Your task to perform on an android device: Open internet settings Image 0: 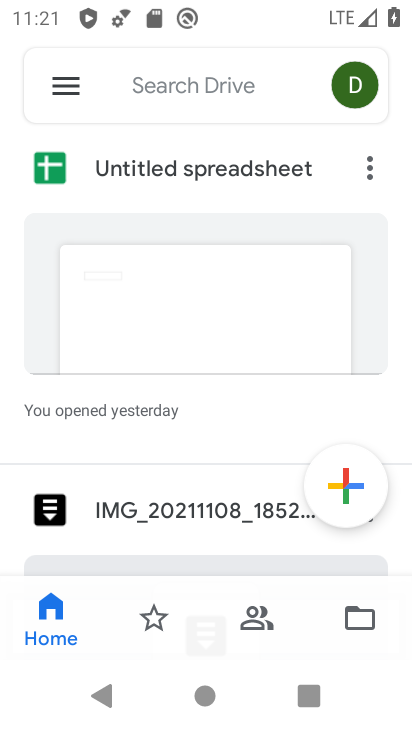
Step 0: press back button
Your task to perform on an android device: Open internet settings Image 1: 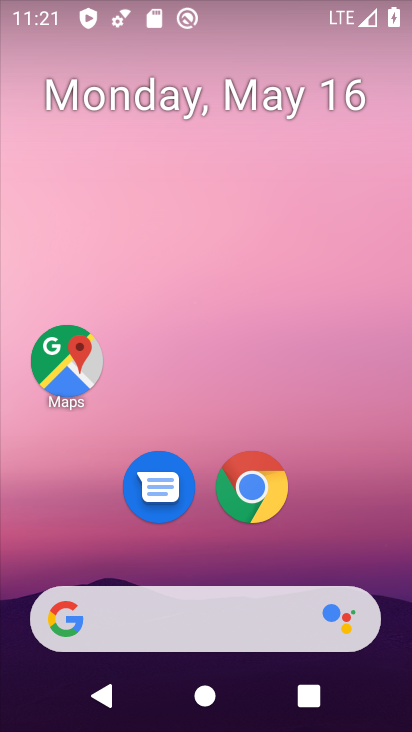
Step 1: drag from (105, 479) to (287, 213)
Your task to perform on an android device: Open internet settings Image 2: 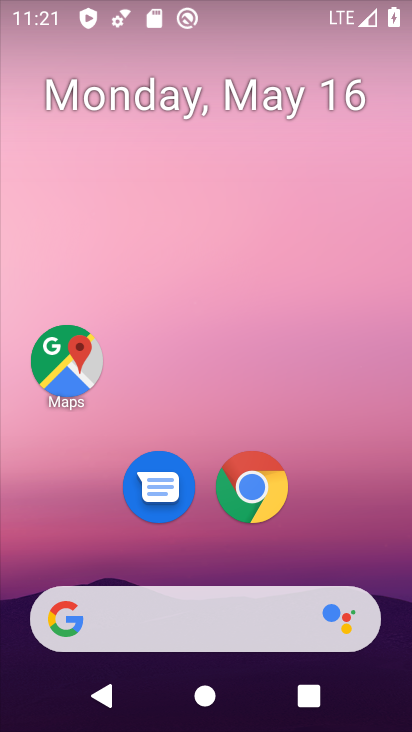
Step 2: drag from (45, 577) to (305, 142)
Your task to perform on an android device: Open internet settings Image 3: 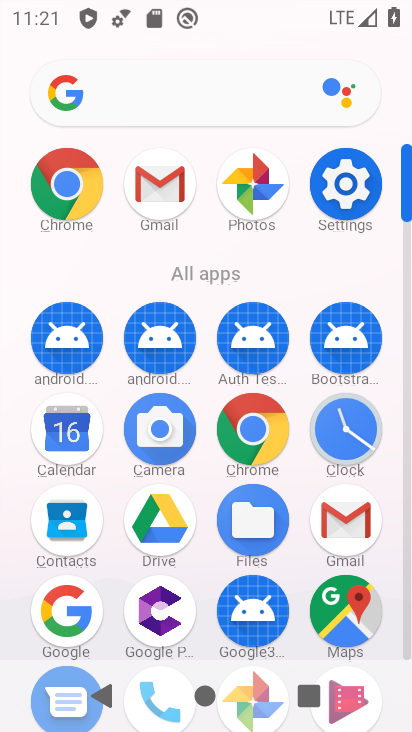
Step 3: click (342, 188)
Your task to perform on an android device: Open internet settings Image 4: 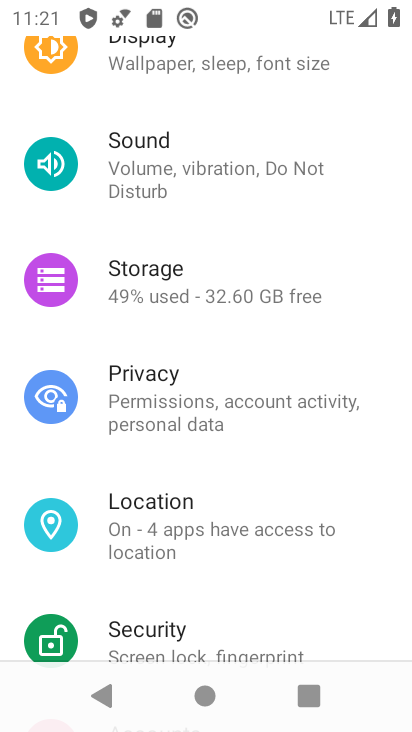
Step 4: drag from (176, 107) to (115, 641)
Your task to perform on an android device: Open internet settings Image 5: 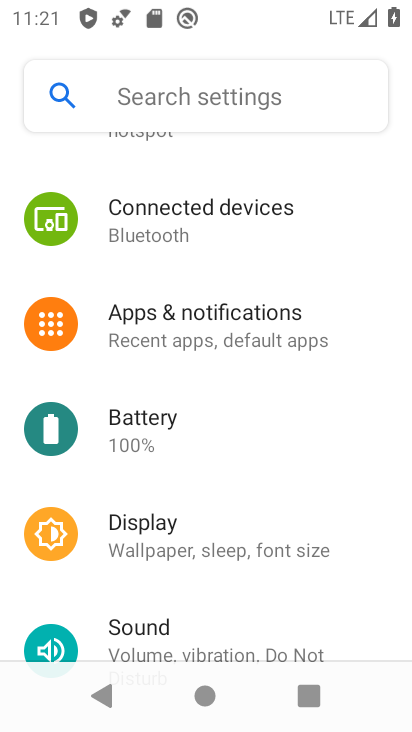
Step 5: drag from (191, 193) to (140, 602)
Your task to perform on an android device: Open internet settings Image 6: 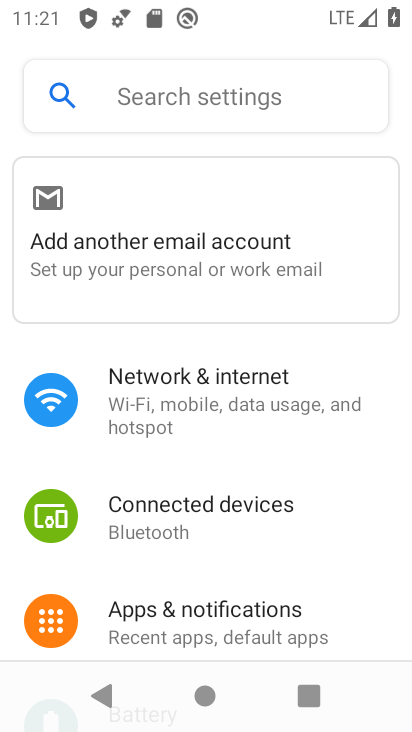
Step 6: click (190, 405)
Your task to perform on an android device: Open internet settings Image 7: 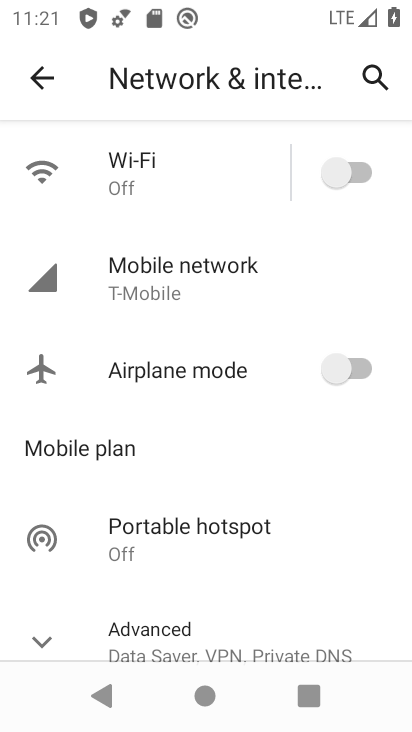
Step 7: click (147, 291)
Your task to perform on an android device: Open internet settings Image 8: 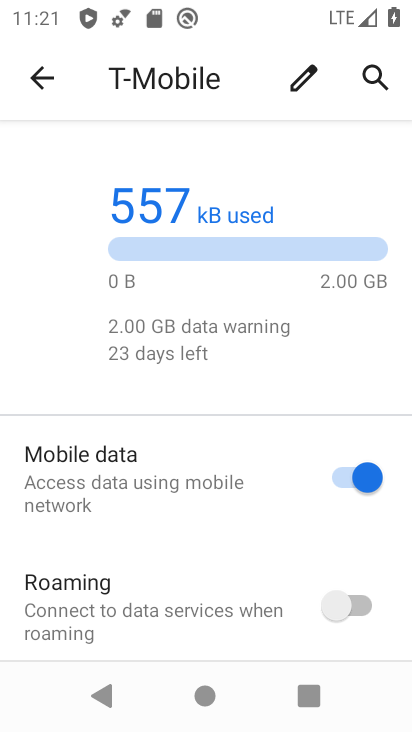
Step 8: task complete